Your task to perform on an android device: set an alarm Image 0: 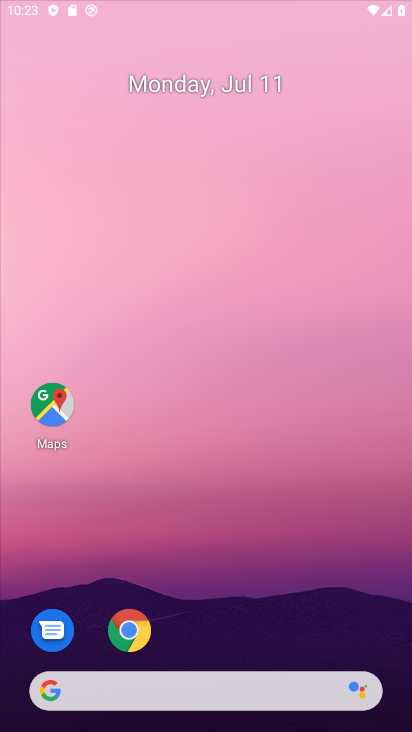
Step 0: drag from (294, 613) to (184, 0)
Your task to perform on an android device: set an alarm Image 1: 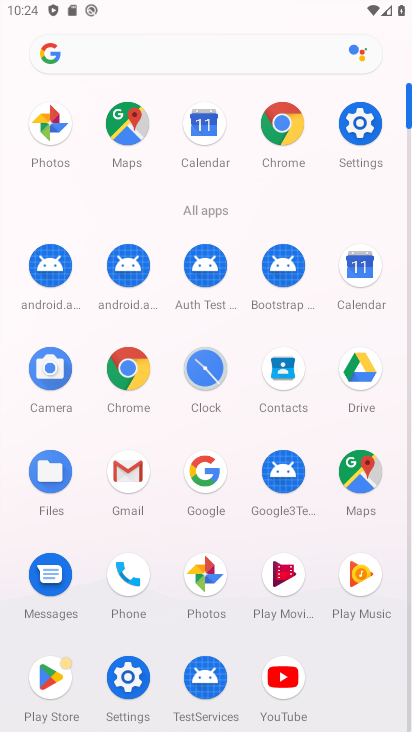
Step 1: click (216, 364)
Your task to perform on an android device: set an alarm Image 2: 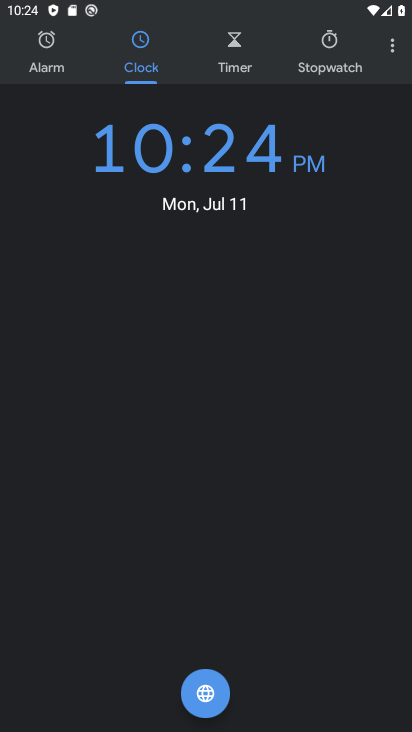
Step 2: click (235, 54)
Your task to perform on an android device: set an alarm Image 3: 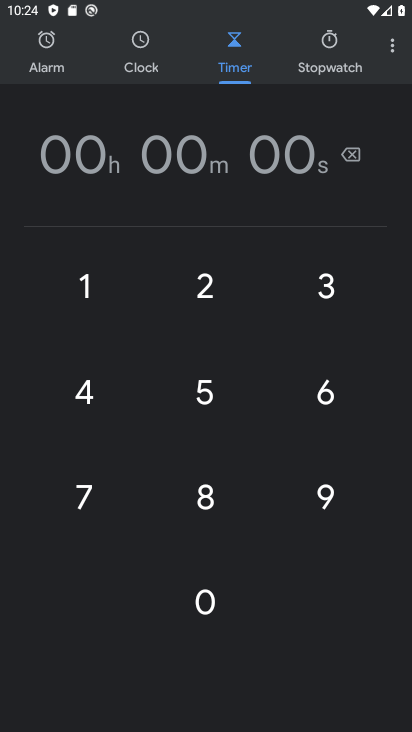
Step 3: click (46, 62)
Your task to perform on an android device: set an alarm Image 4: 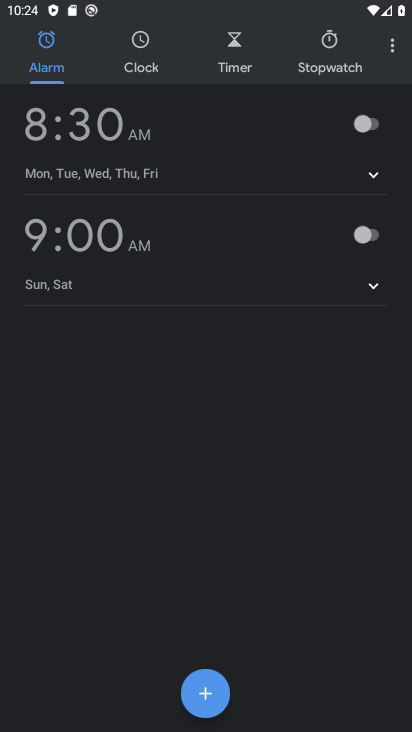
Step 4: click (364, 114)
Your task to perform on an android device: set an alarm Image 5: 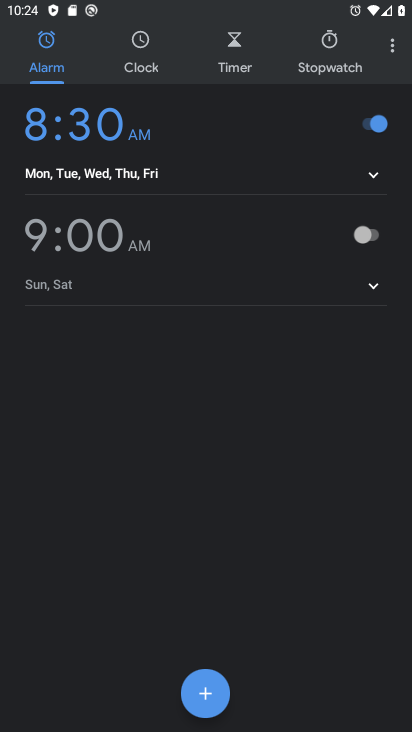
Step 5: task complete